Your task to perform on an android device: Open CNN.com Image 0: 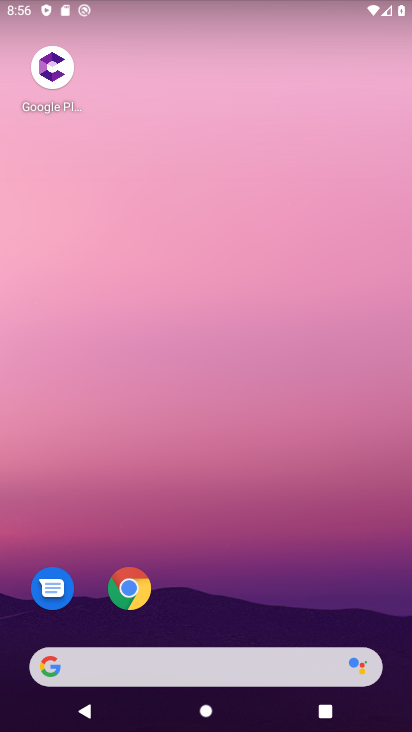
Step 0: click (122, 593)
Your task to perform on an android device: Open CNN.com Image 1: 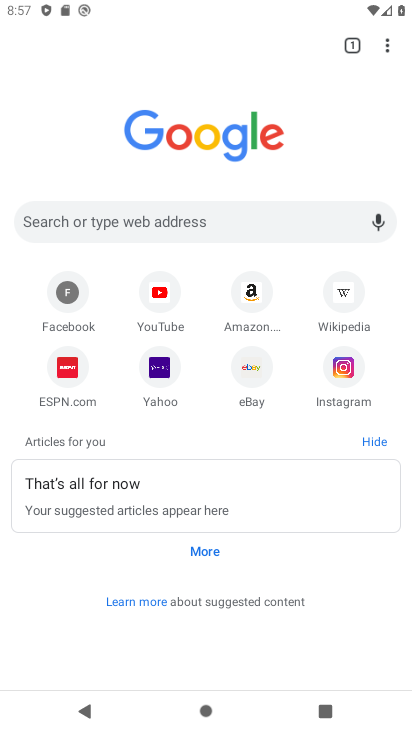
Step 1: click (107, 214)
Your task to perform on an android device: Open CNN.com Image 2: 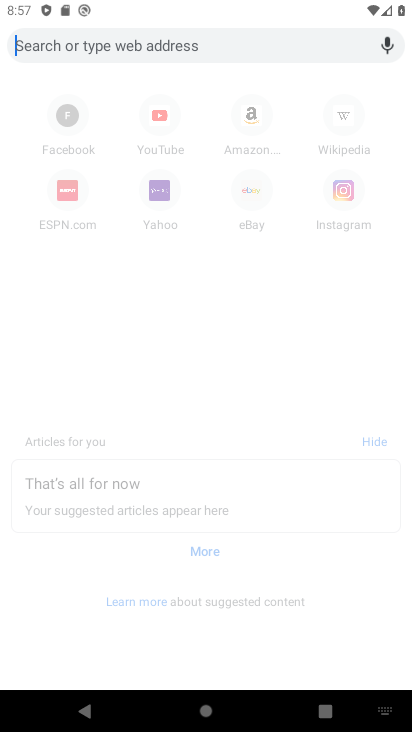
Step 2: type "CNN.com"
Your task to perform on an android device: Open CNN.com Image 3: 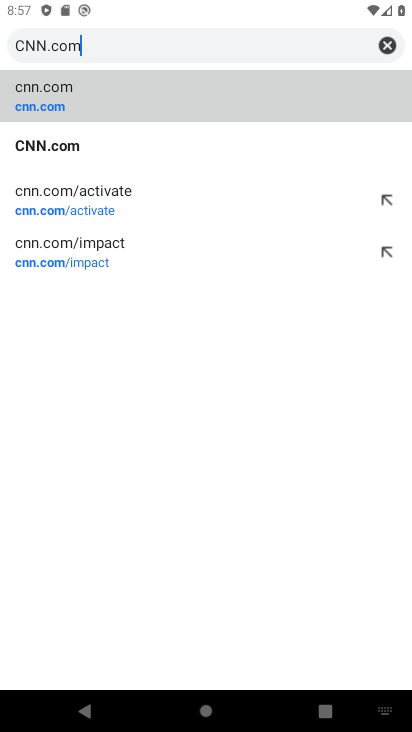
Step 3: click (95, 88)
Your task to perform on an android device: Open CNN.com Image 4: 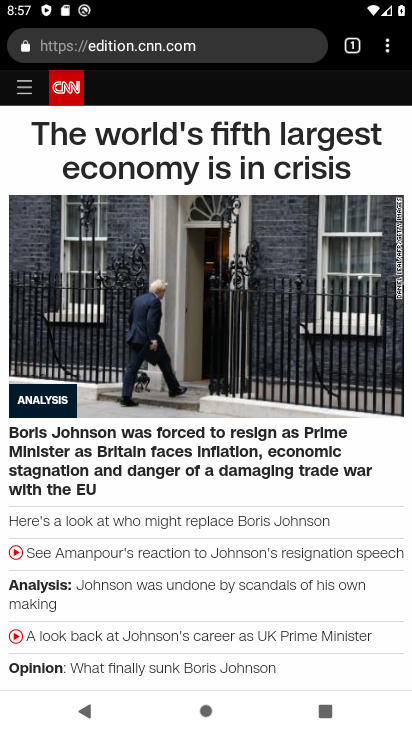
Step 4: task complete